Your task to perform on an android device: Go to ESPN.com Image 0: 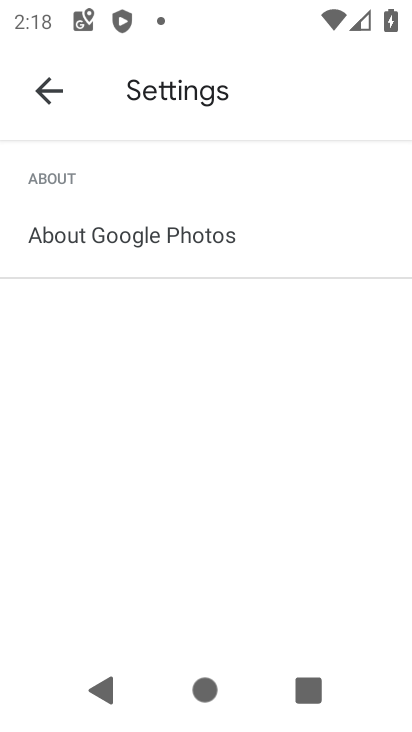
Step 0: press home button
Your task to perform on an android device: Go to ESPN.com Image 1: 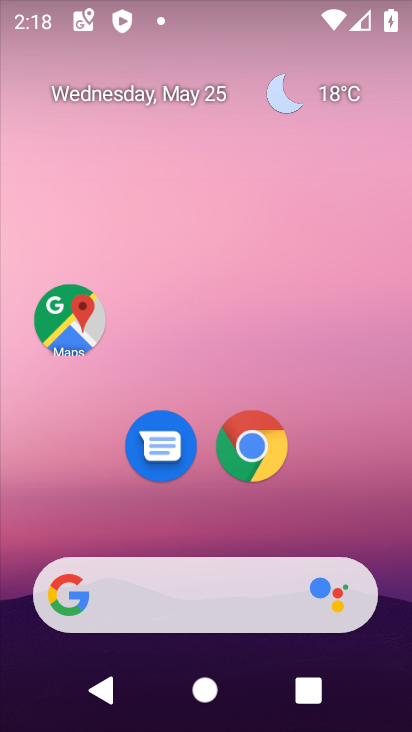
Step 1: click (251, 481)
Your task to perform on an android device: Go to ESPN.com Image 2: 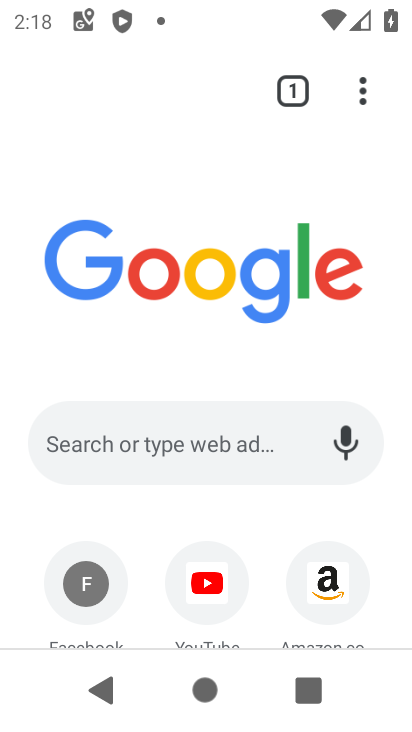
Step 2: drag from (179, 641) to (203, 280)
Your task to perform on an android device: Go to ESPN.com Image 3: 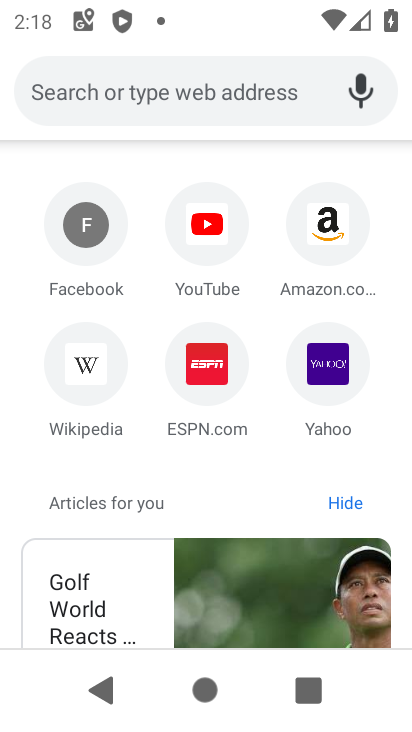
Step 3: click (196, 367)
Your task to perform on an android device: Go to ESPN.com Image 4: 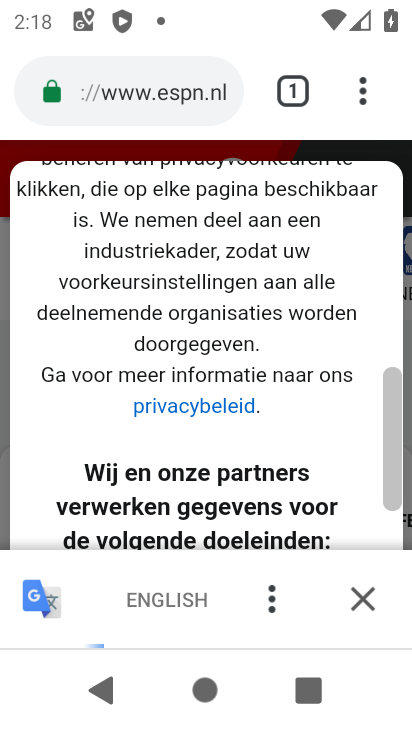
Step 4: task complete